Your task to perform on an android device: Check the weather Image 0: 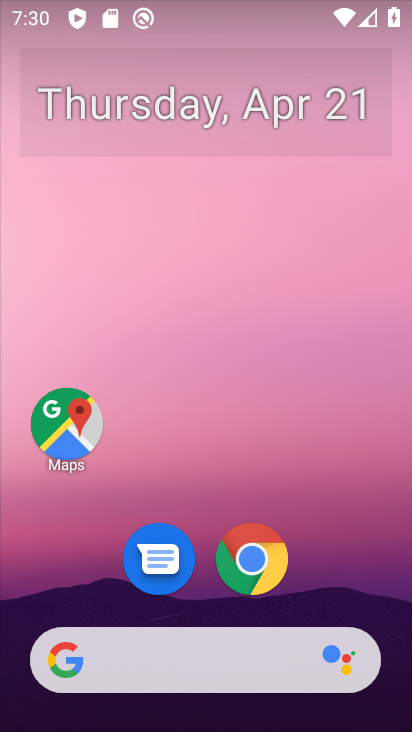
Step 0: drag from (372, 569) to (347, 136)
Your task to perform on an android device: Check the weather Image 1: 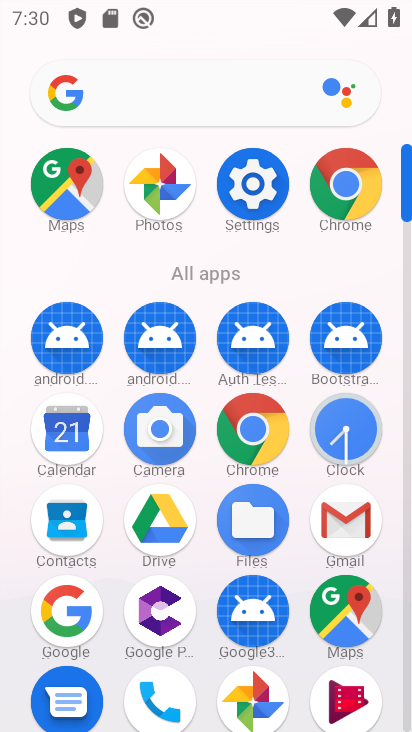
Step 1: click (325, 201)
Your task to perform on an android device: Check the weather Image 2: 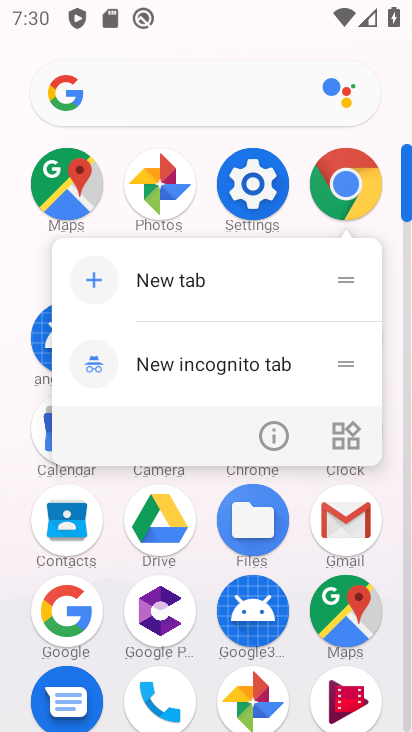
Step 2: click (329, 211)
Your task to perform on an android device: Check the weather Image 3: 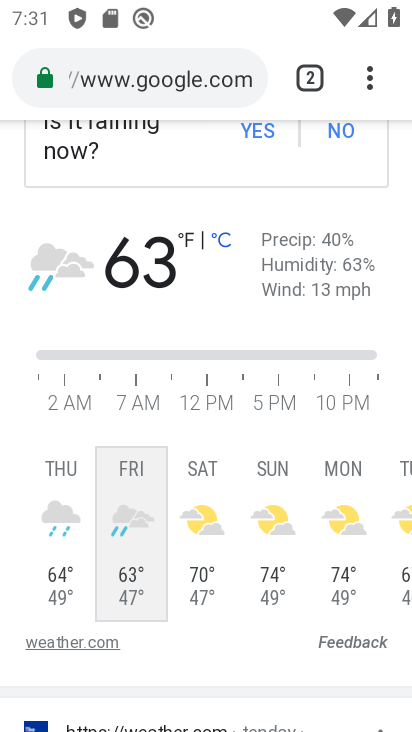
Step 3: click (166, 87)
Your task to perform on an android device: Check the weather Image 4: 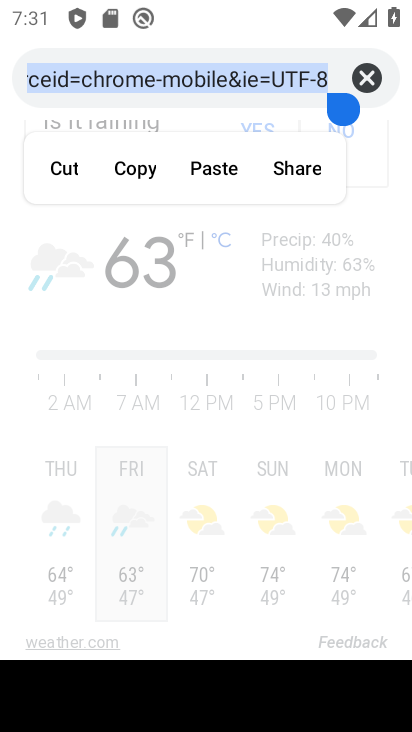
Step 4: click (377, 85)
Your task to perform on an android device: Check the weather Image 5: 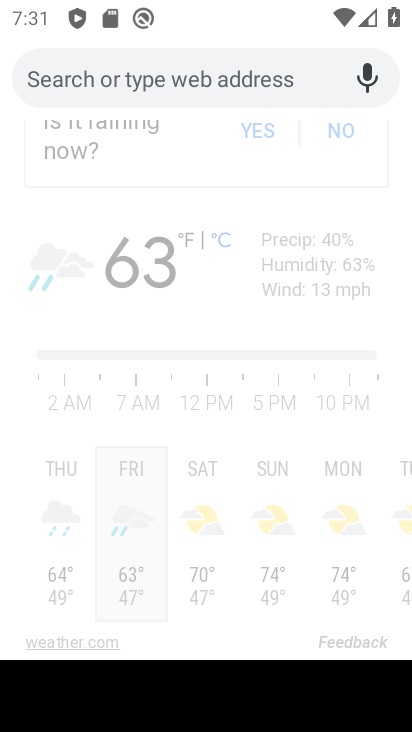
Step 5: type "weather"
Your task to perform on an android device: Check the weather Image 6: 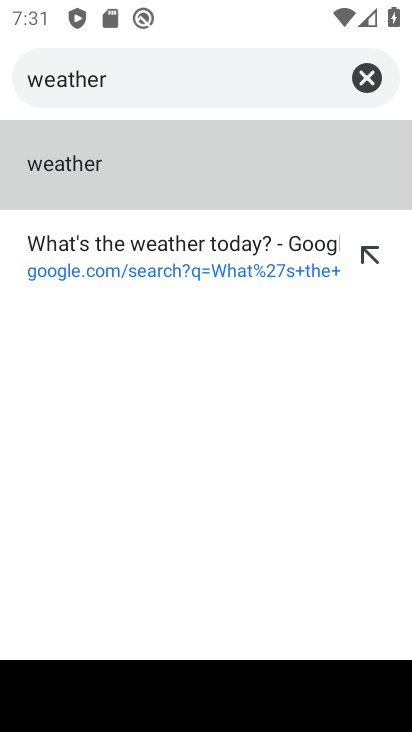
Step 6: click (63, 175)
Your task to perform on an android device: Check the weather Image 7: 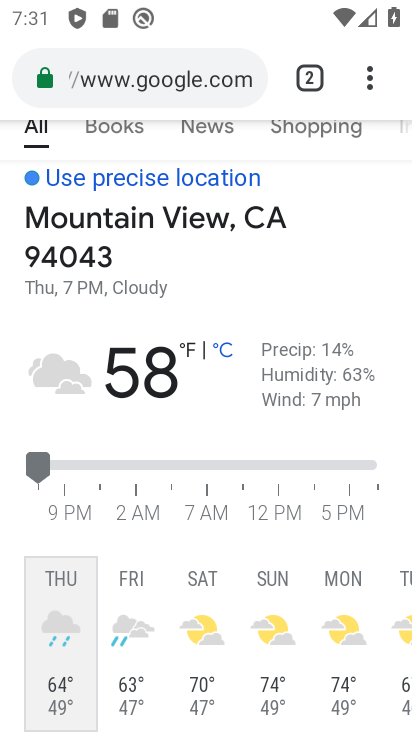
Step 7: task complete